Your task to perform on an android device: Open sound settings Image 0: 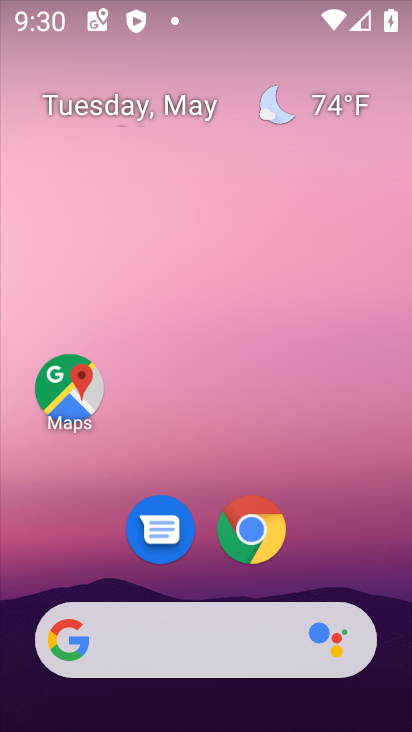
Step 0: drag from (203, 580) to (204, 245)
Your task to perform on an android device: Open sound settings Image 1: 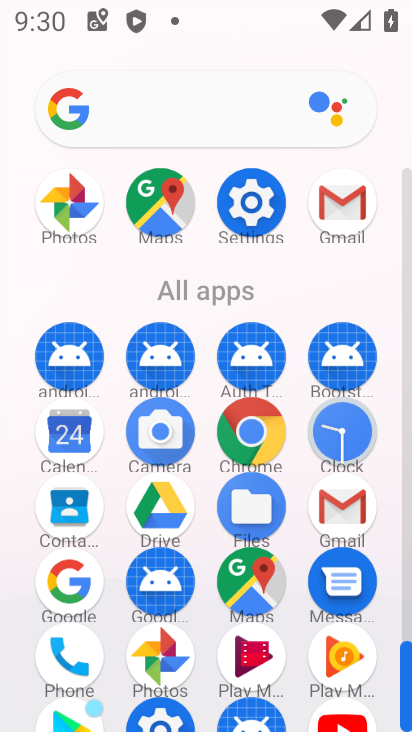
Step 1: click (254, 202)
Your task to perform on an android device: Open sound settings Image 2: 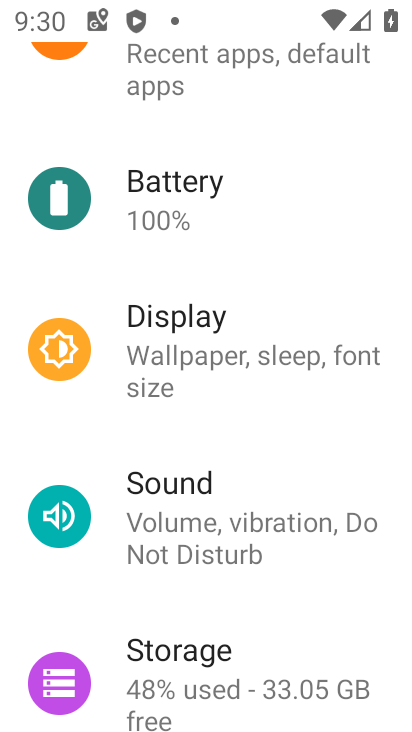
Step 2: drag from (242, 178) to (278, 641)
Your task to perform on an android device: Open sound settings Image 3: 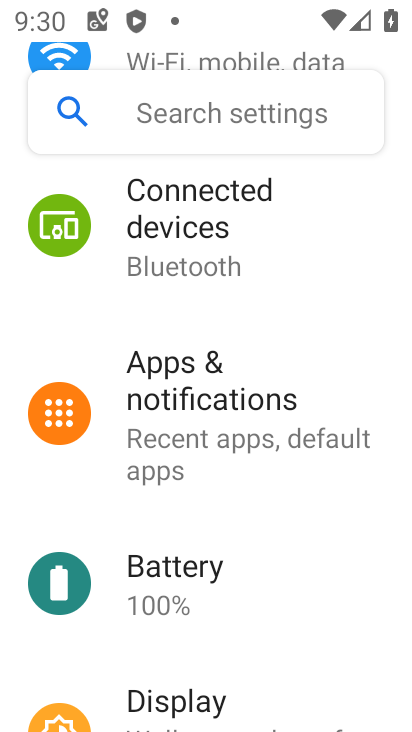
Step 3: drag from (234, 268) to (211, 635)
Your task to perform on an android device: Open sound settings Image 4: 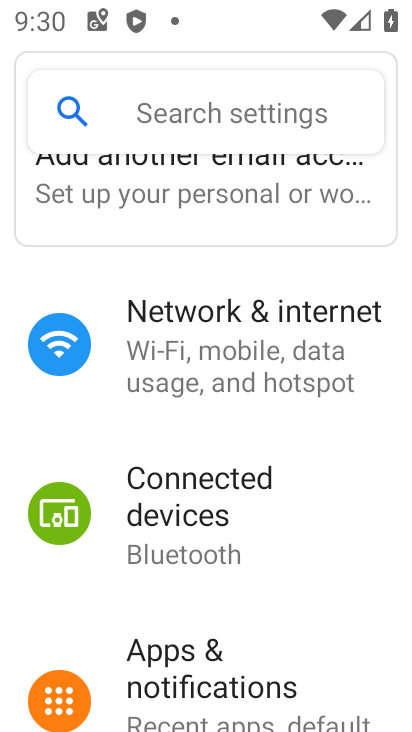
Step 4: drag from (258, 621) to (274, 223)
Your task to perform on an android device: Open sound settings Image 5: 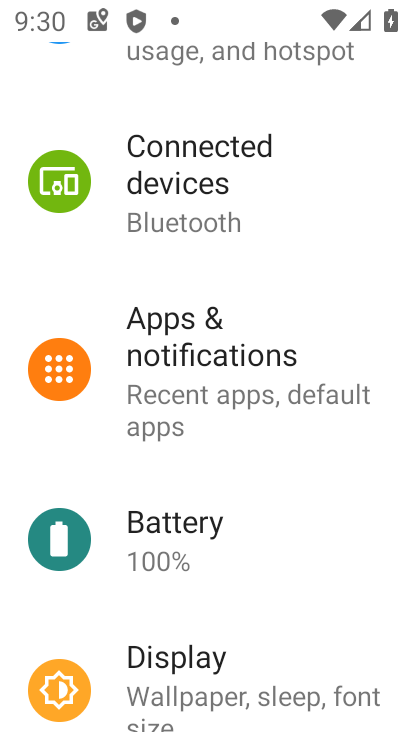
Step 5: drag from (233, 644) to (228, 214)
Your task to perform on an android device: Open sound settings Image 6: 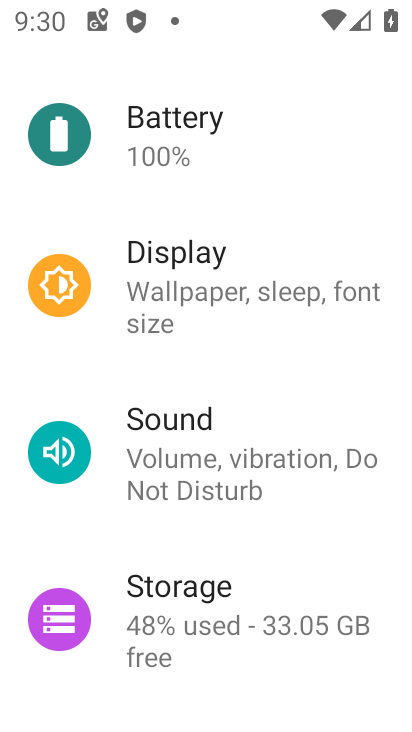
Step 6: click (181, 478)
Your task to perform on an android device: Open sound settings Image 7: 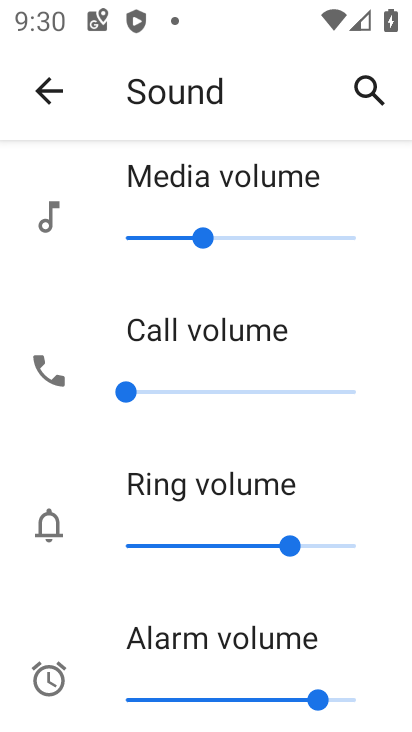
Step 7: task complete